Your task to perform on an android device: turn on showing notifications on the lock screen Image 0: 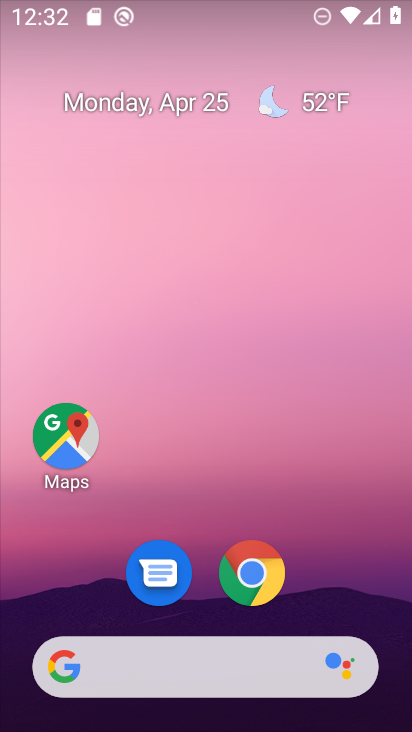
Step 0: drag from (216, 724) to (215, 196)
Your task to perform on an android device: turn on showing notifications on the lock screen Image 1: 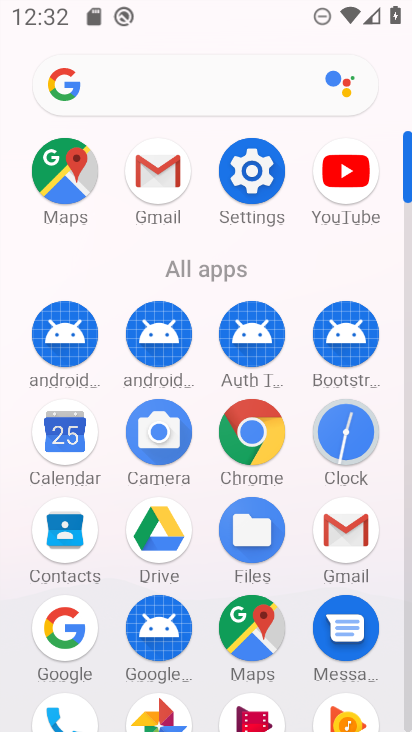
Step 1: click (247, 164)
Your task to perform on an android device: turn on showing notifications on the lock screen Image 2: 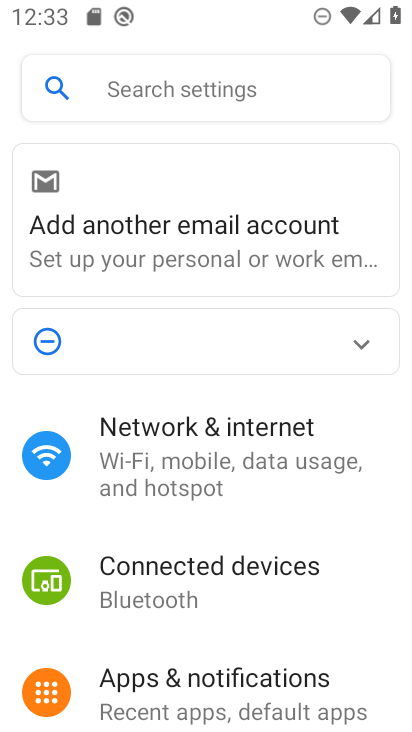
Step 2: click (178, 685)
Your task to perform on an android device: turn on showing notifications on the lock screen Image 3: 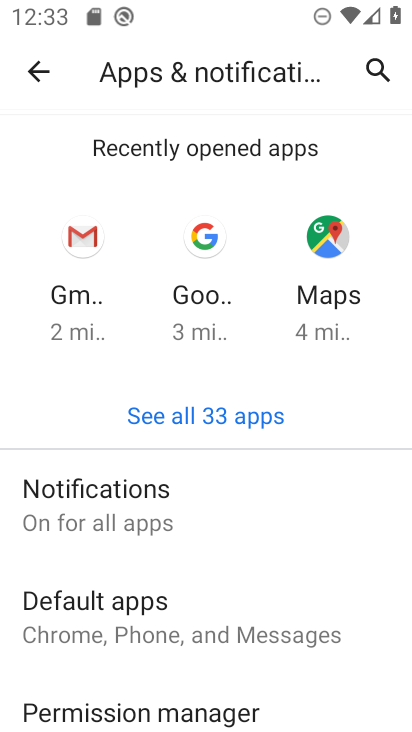
Step 3: click (74, 513)
Your task to perform on an android device: turn on showing notifications on the lock screen Image 4: 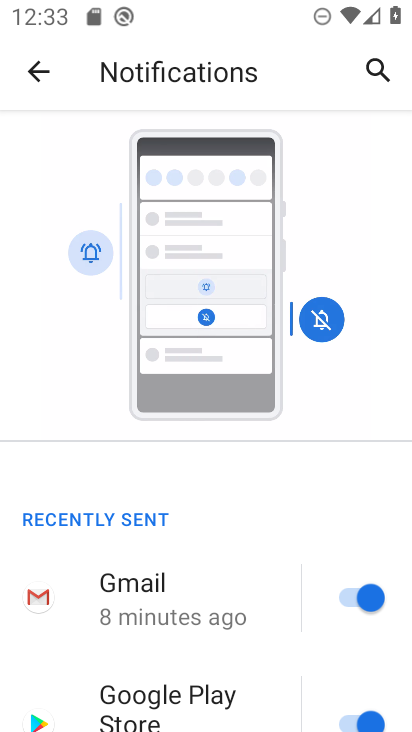
Step 4: drag from (161, 693) to (134, 267)
Your task to perform on an android device: turn on showing notifications on the lock screen Image 5: 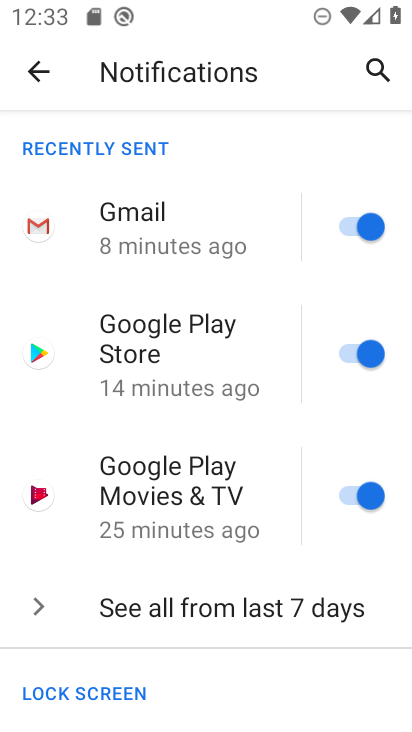
Step 5: drag from (192, 703) to (172, 272)
Your task to perform on an android device: turn on showing notifications on the lock screen Image 6: 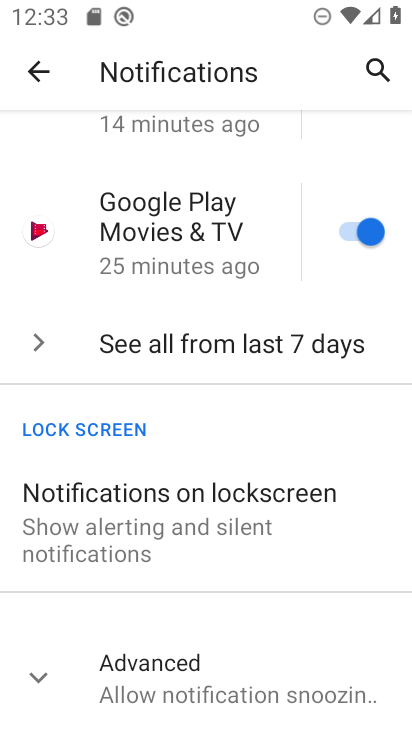
Step 6: click (167, 507)
Your task to perform on an android device: turn on showing notifications on the lock screen Image 7: 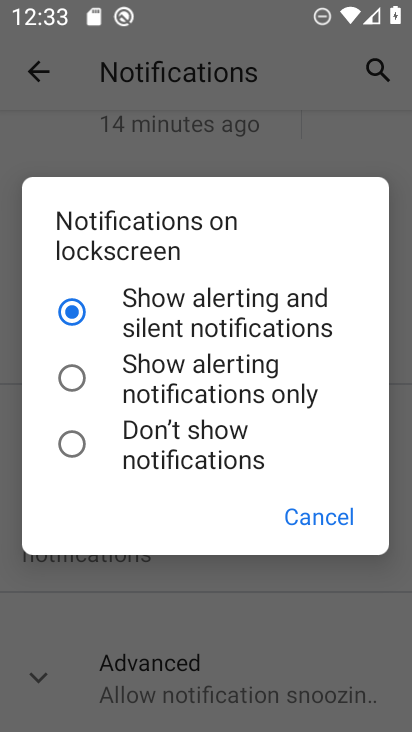
Step 7: click (191, 300)
Your task to perform on an android device: turn on showing notifications on the lock screen Image 8: 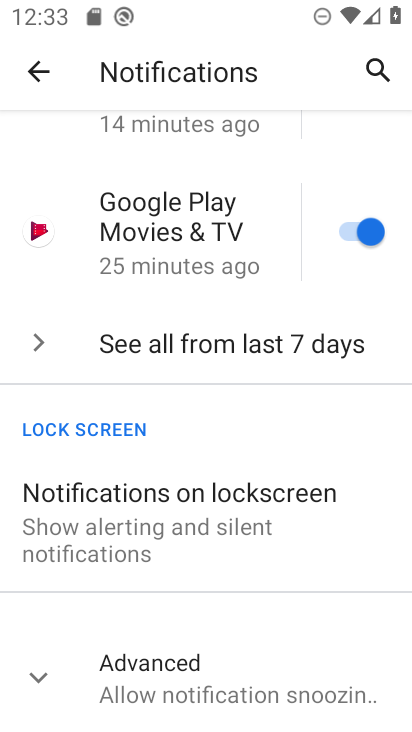
Step 8: task complete